Your task to perform on an android device: see sites visited before in the chrome app Image 0: 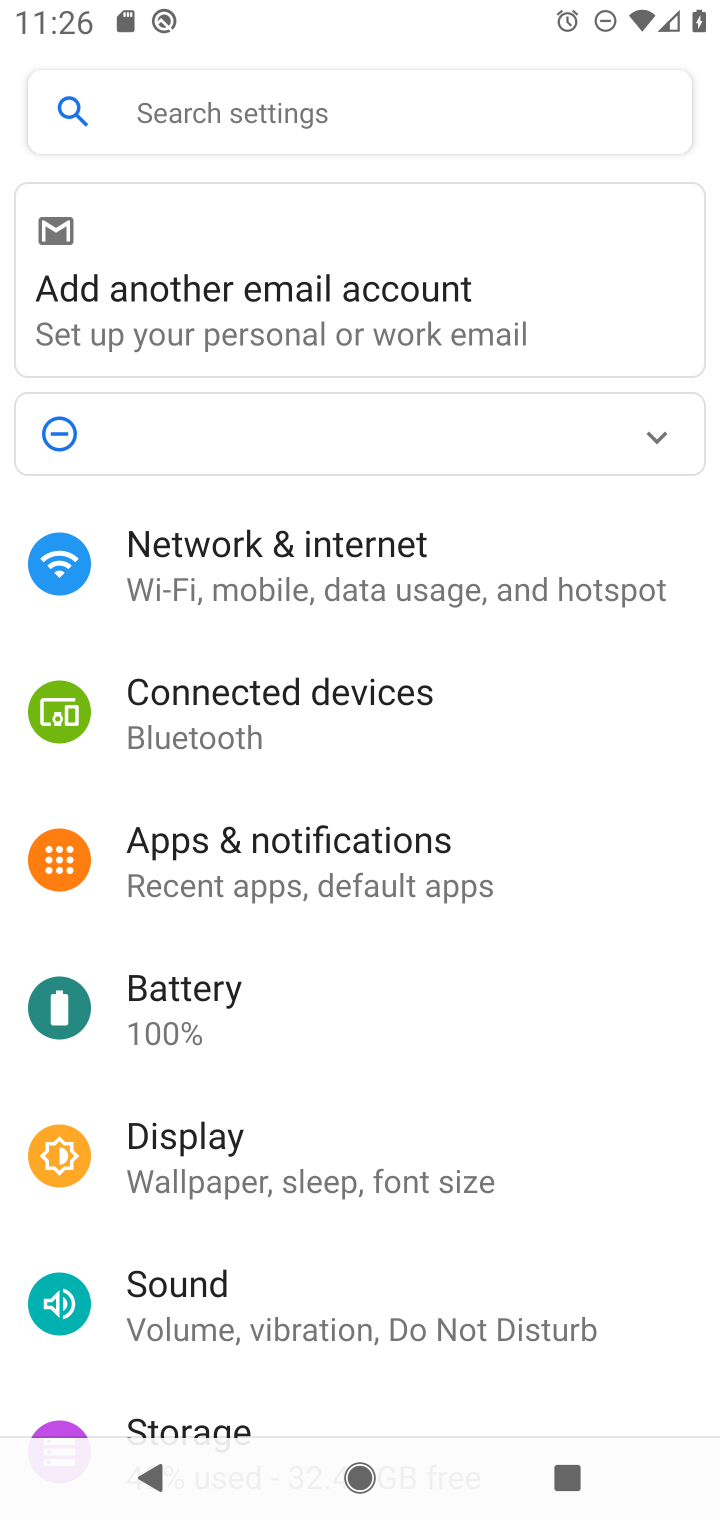
Step 0: press home button
Your task to perform on an android device: see sites visited before in the chrome app Image 1: 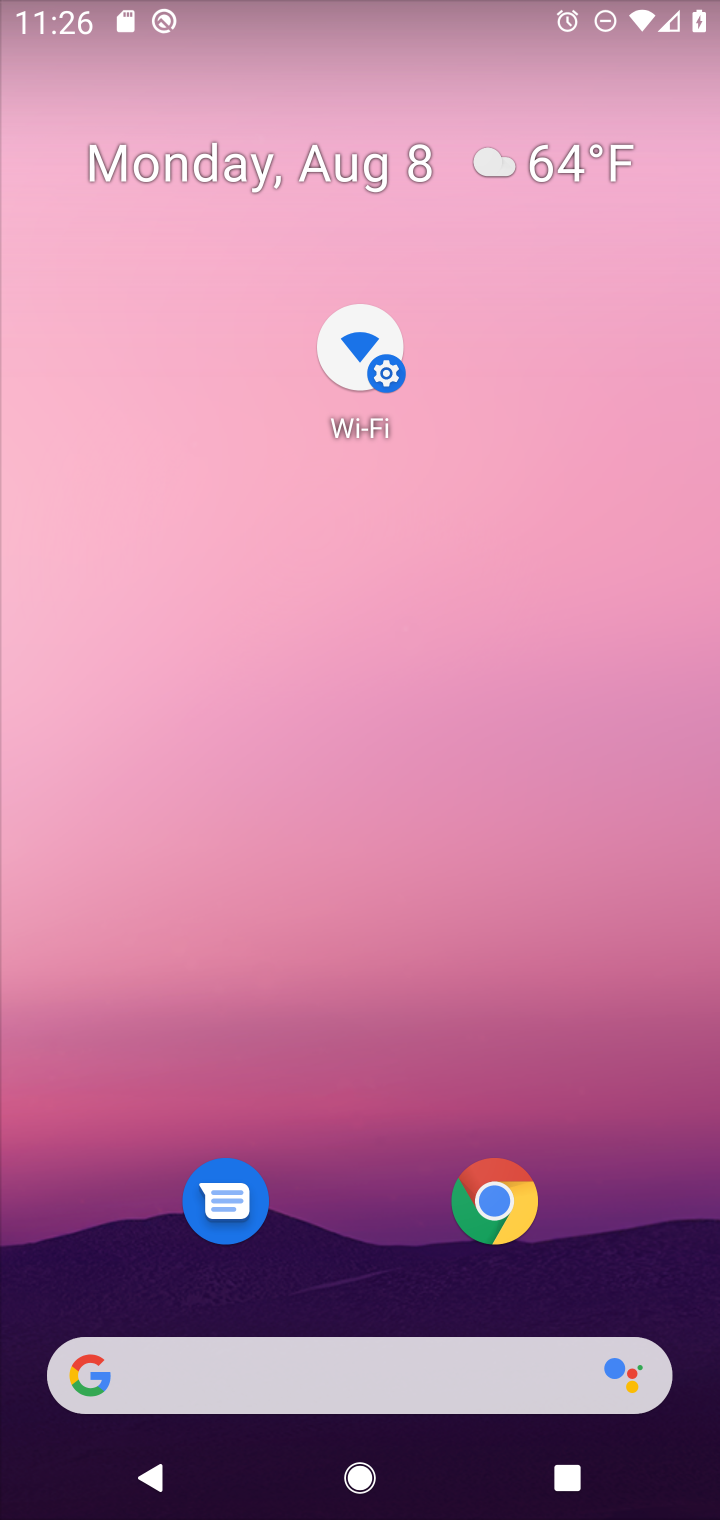
Step 1: press home button
Your task to perform on an android device: see sites visited before in the chrome app Image 2: 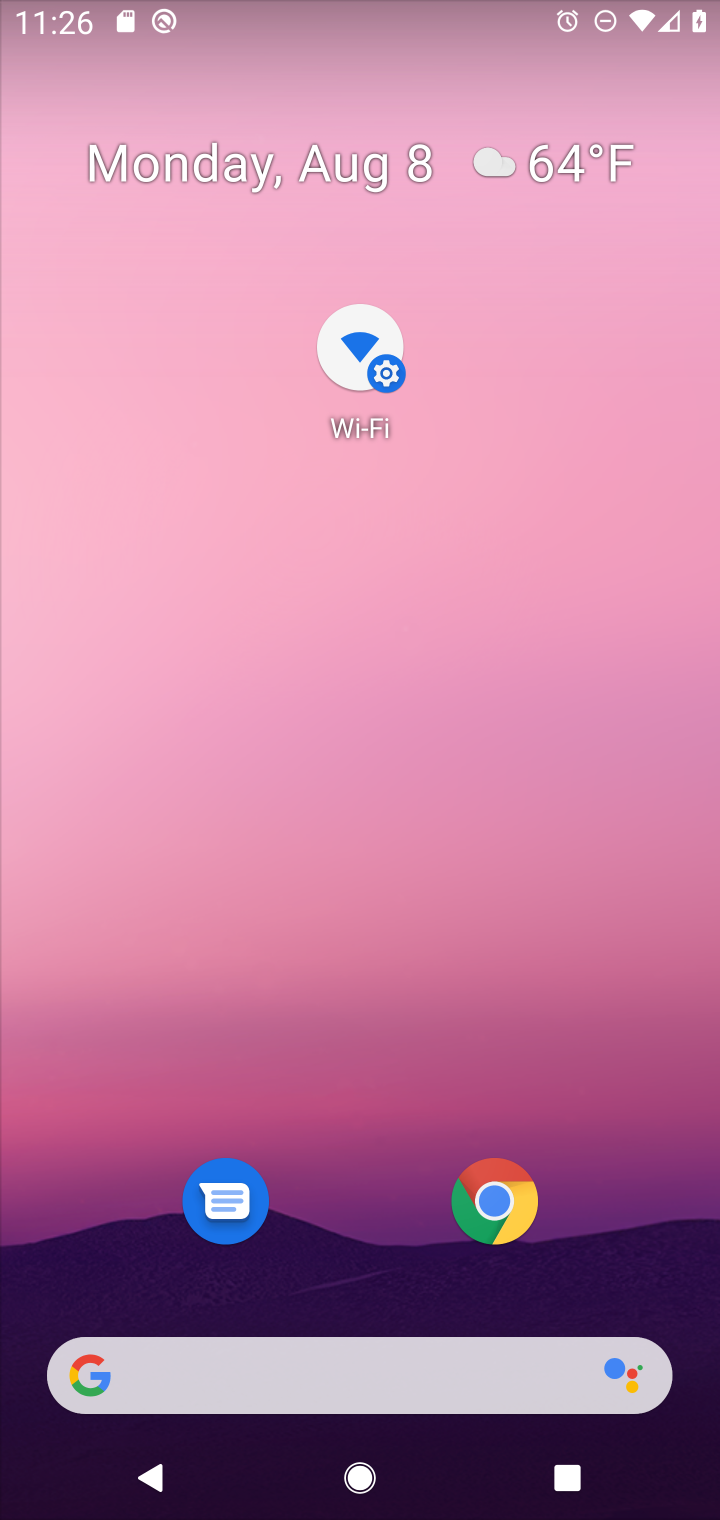
Step 2: drag from (349, 1225) to (512, 113)
Your task to perform on an android device: see sites visited before in the chrome app Image 3: 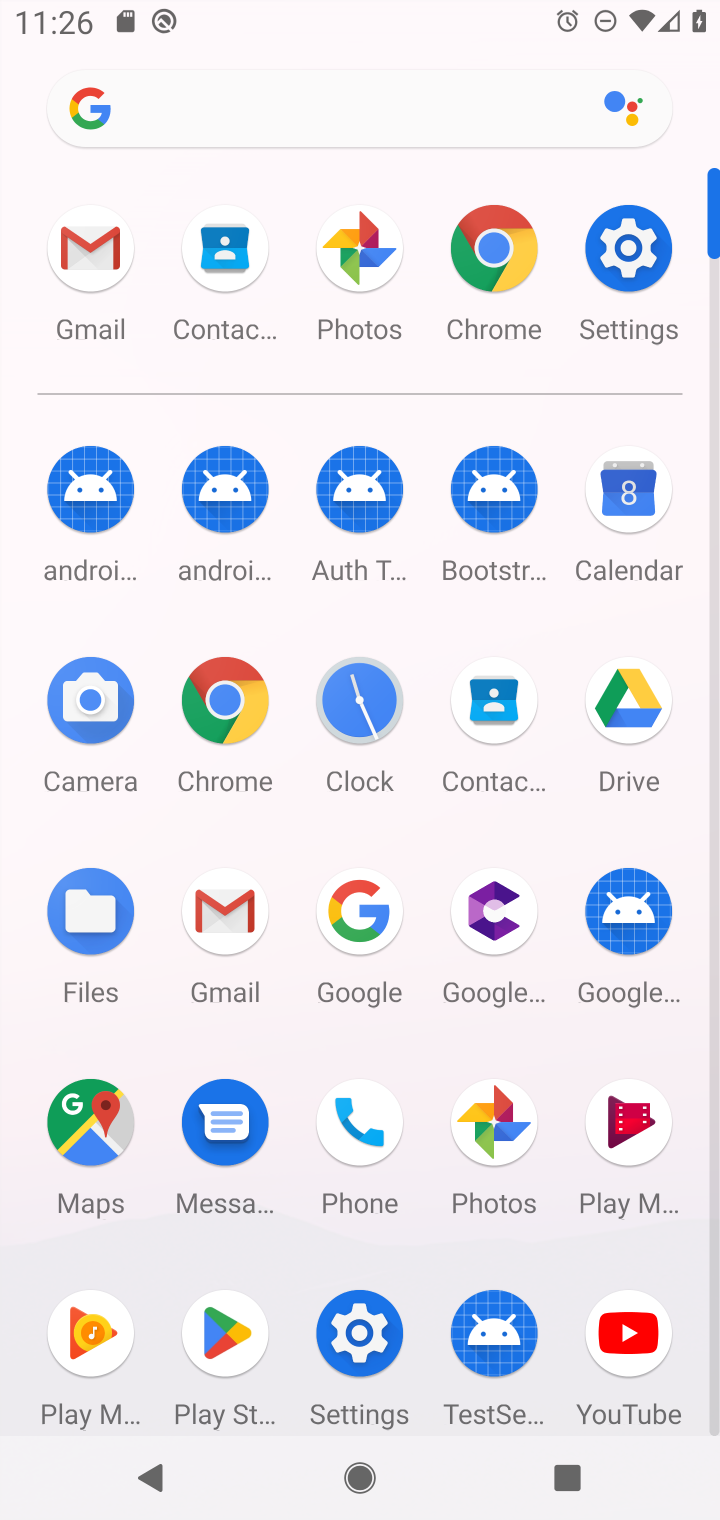
Step 3: click (214, 722)
Your task to perform on an android device: see sites visited before in the chrome app Image 4: 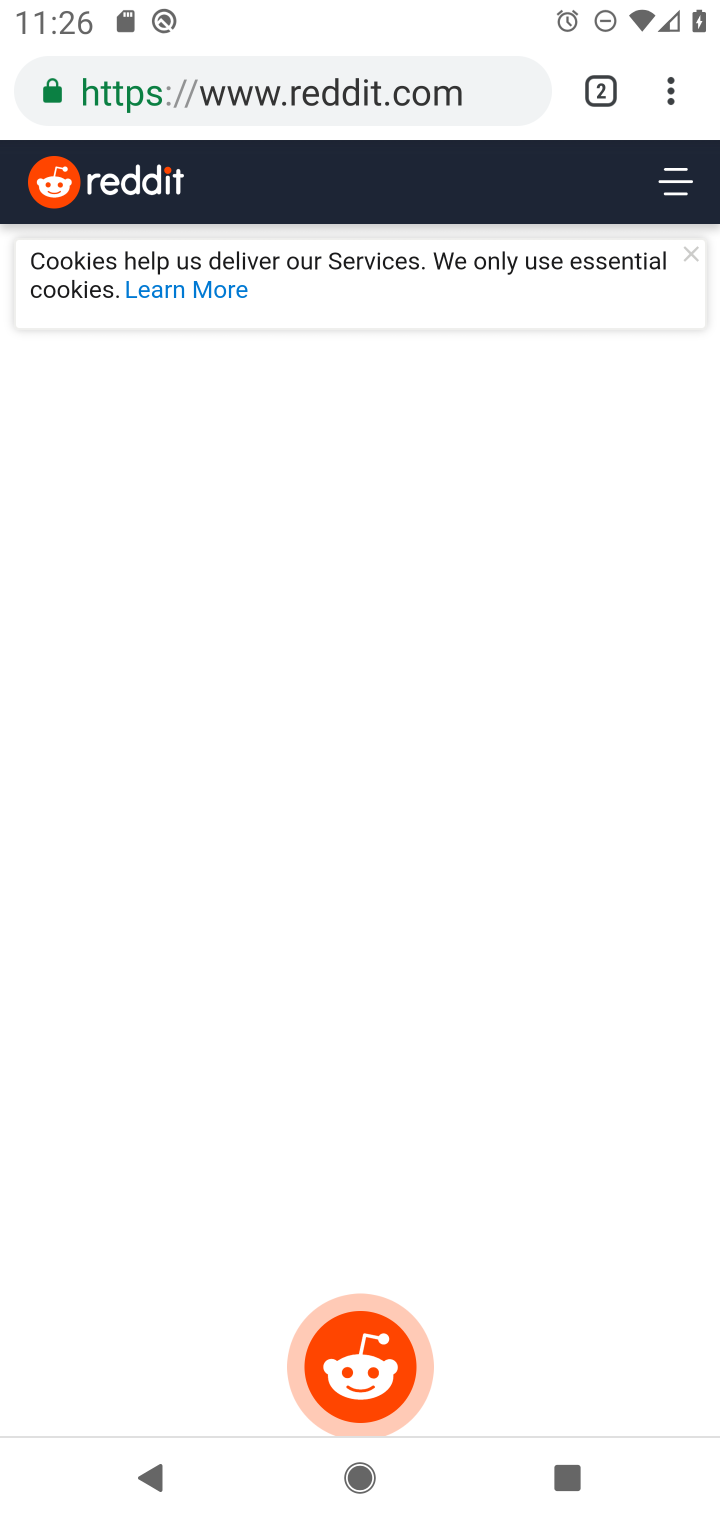
Step 4: click (670, 100)
Your task to perform on an android device: see sites visited before in the chrome app Image 5: 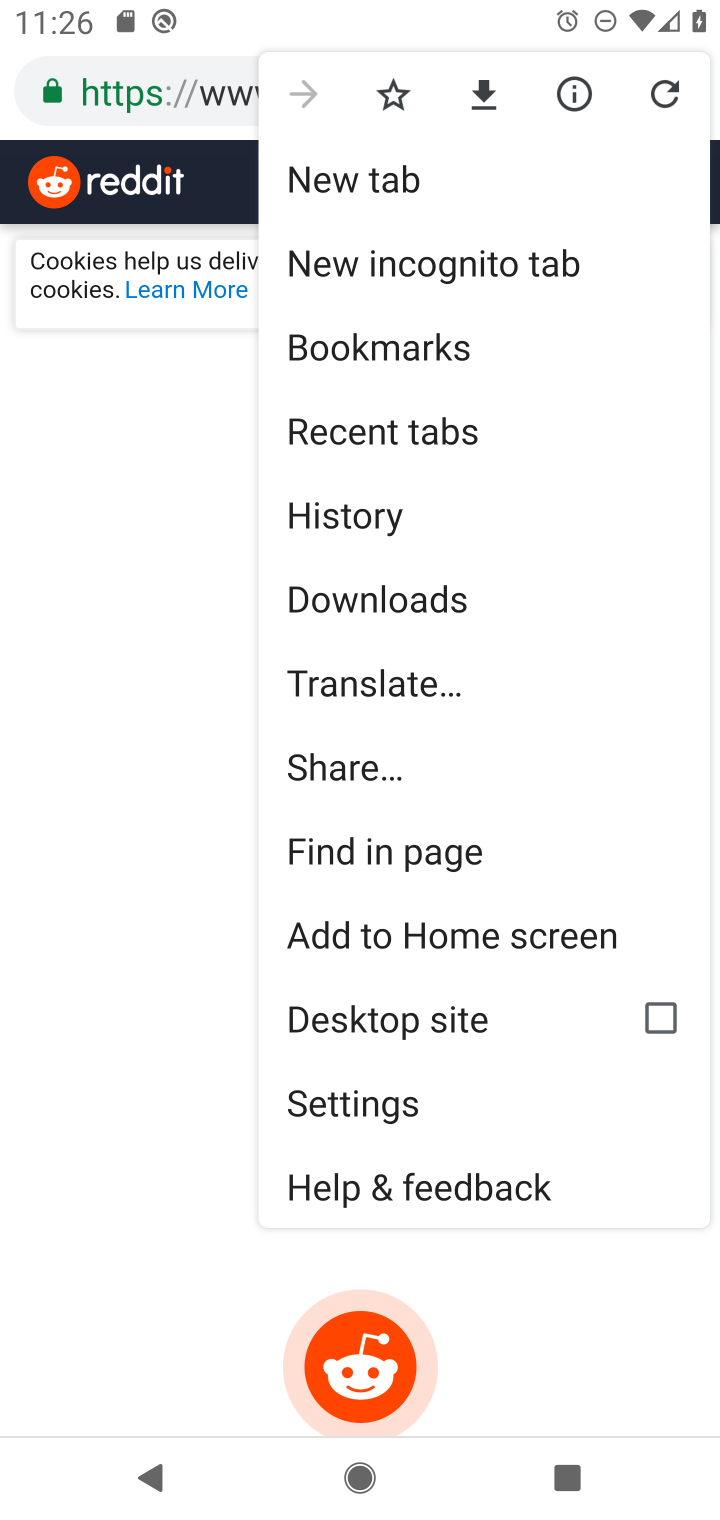
Step 5: click (386, 503)
Your task to perform on an android device: see sites visited before in the chrome app Image 6: 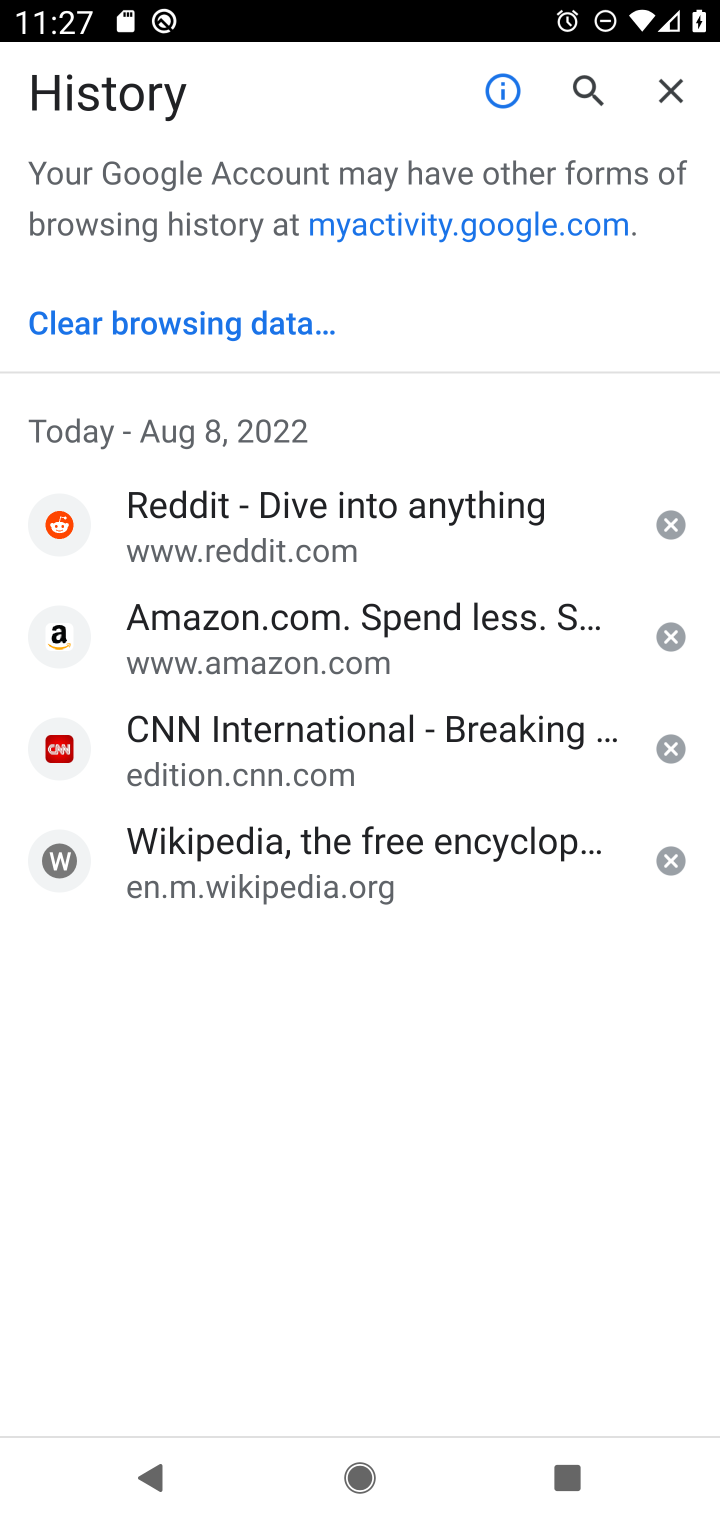
Step 6: task complete